Your task to perform on an android device: make emails show in primary in the gmail app Image 0: 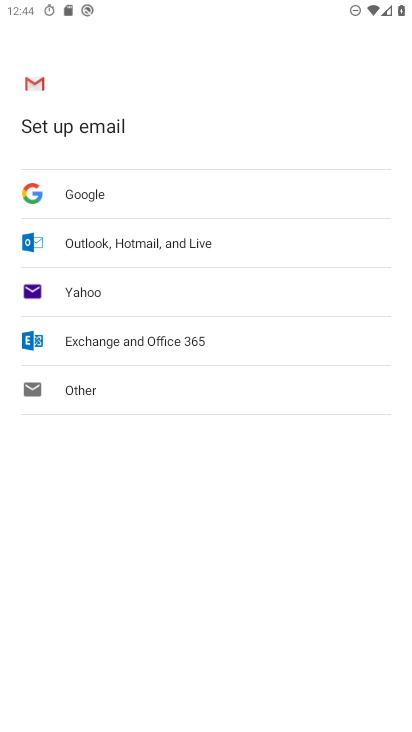
Step 0: press home button
Your task to perform on an android device: make emails show in primary in the gmail app Image 1: 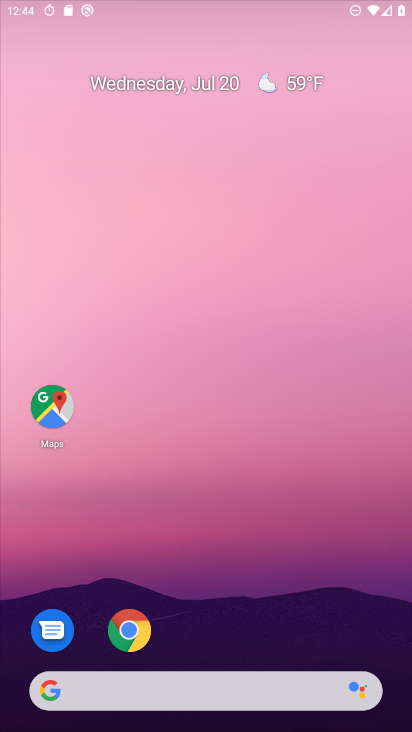
Step 1: drag from (255, 543) to (279, 40)
Your task to perform on an android device: make emails show in primary in the gmail app Image 2: 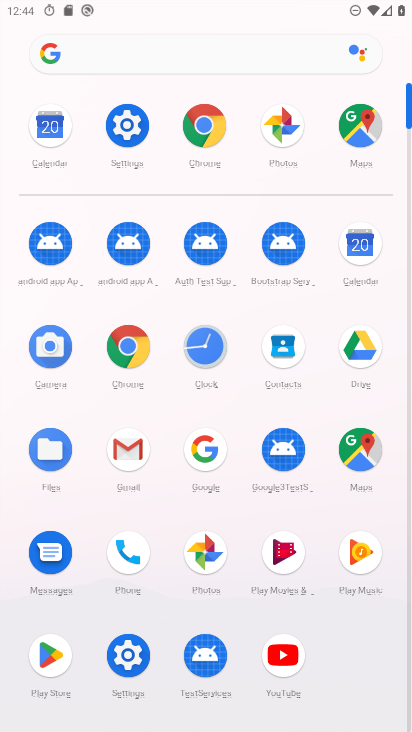
Step 2: click (123, 457)
Your task to perform on an android device: make emails show in primary in the gmail app Image 3: 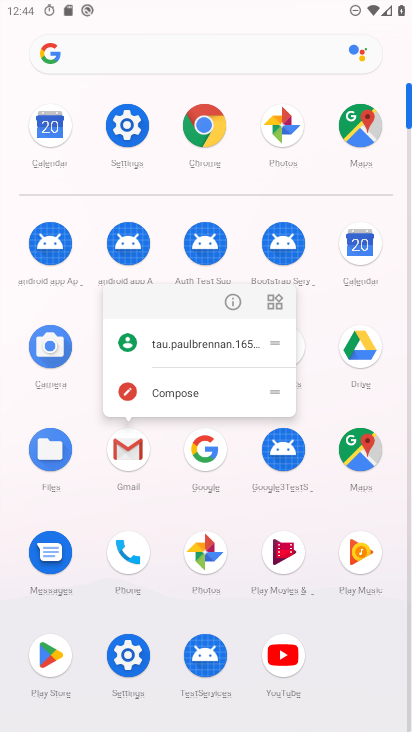
Step 3: click (122, 461)
Your task to perform on an android device: make emails show in primary in the gmail app Image 4: 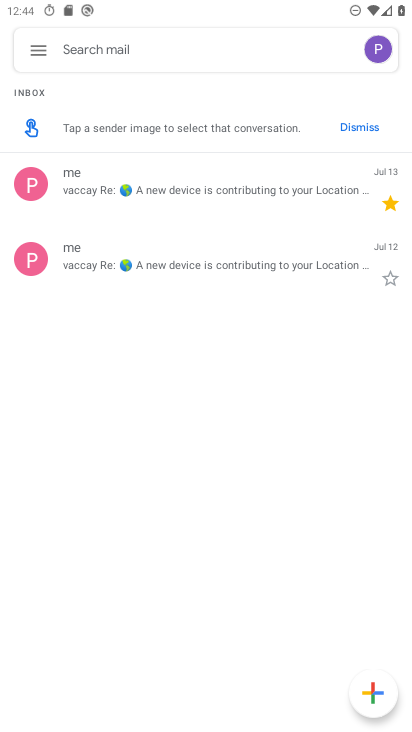
Step 4: click (30, 48)
Your task to perform on an android device: make emails show in primary in the gmail app Image 5: 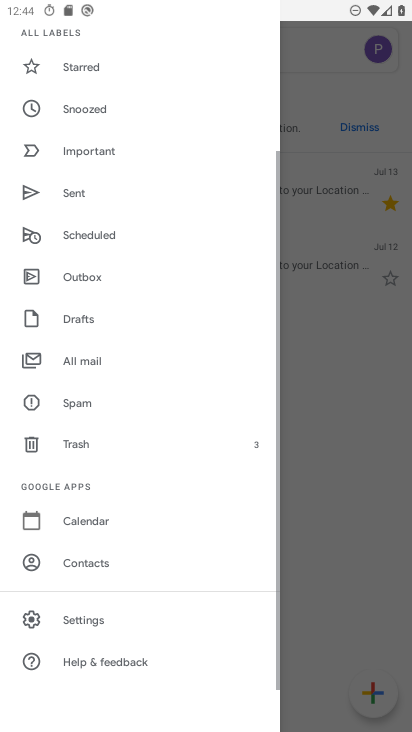
Step 5: drag from (107, 91) to (99, 491)
Your task to perform on an android device: make emails show in primary in the gmail app Image 6: 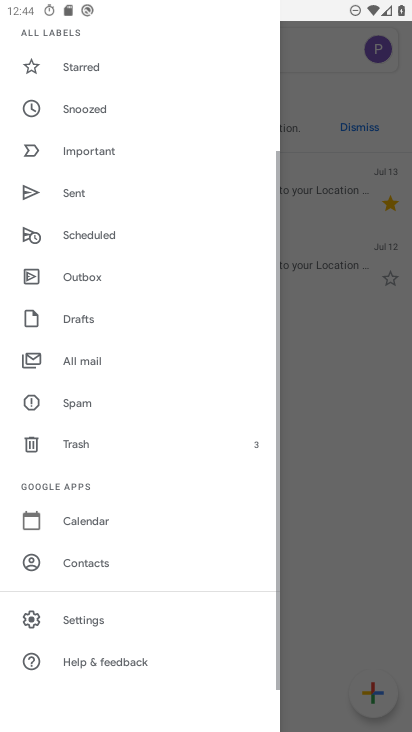
Step 6: drag from (116, 246) to (155, 702)
Your task to perform on an android device: make emails show in primary in the gmail app Image 7: 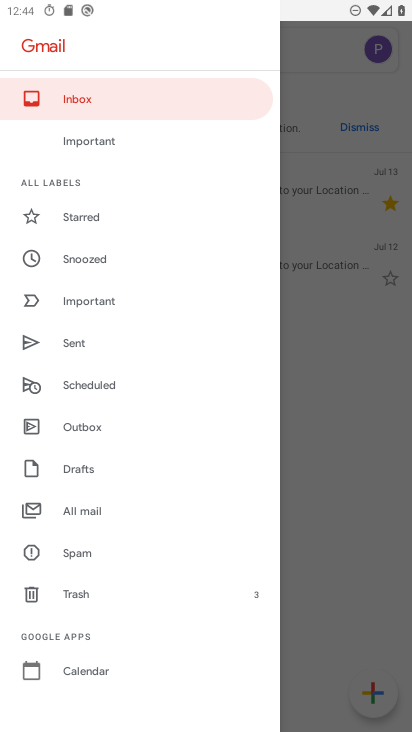
Step 7: drag from (151, 638) to (158, 90)
Your task to perform on an android device: make emails show in primary in the gmail app Image 8: 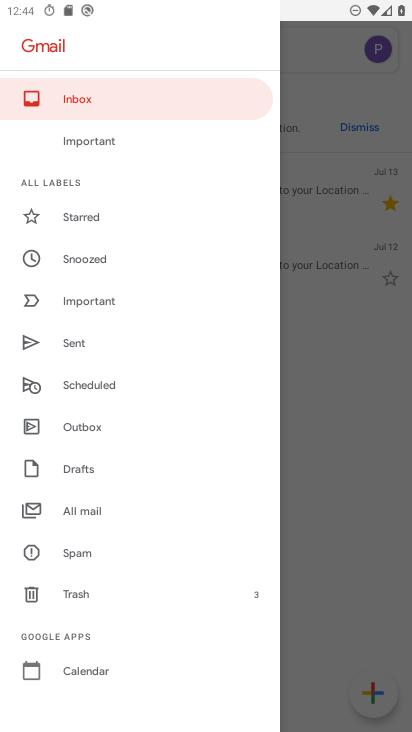
Step 8: drag from (92, 581) to (171, 159)
Your task to perform on an android device: make emails show in primary in the gmail app Image 9: 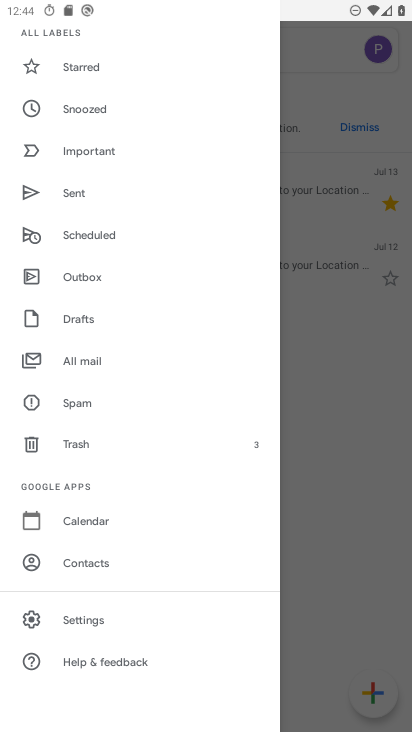
Step 9: click (90, 618)
Your task to perform on an android device: make emails show in primary in the gmail app Image 10: 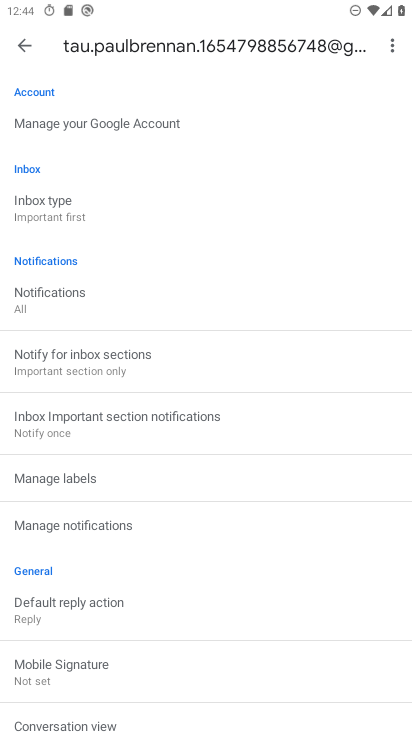
Step 10: click (92, 219)
Your task to perform on an android device: make emails show in primary in the gmail app Image 11: 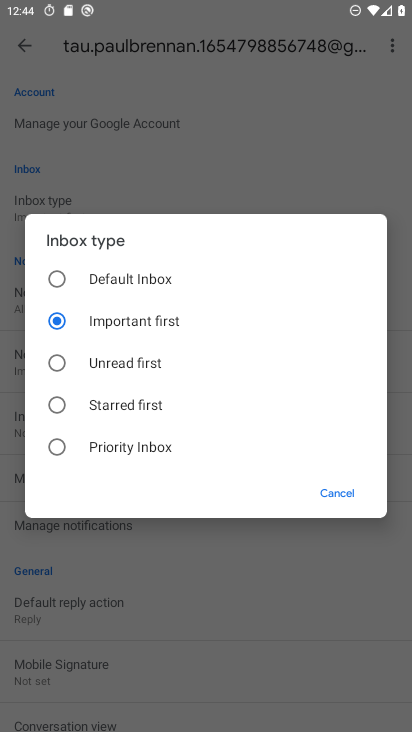
Step 11: click (55, 269)
Your task to perform on an android device: make emails show in primary in the gmail app Image 12: 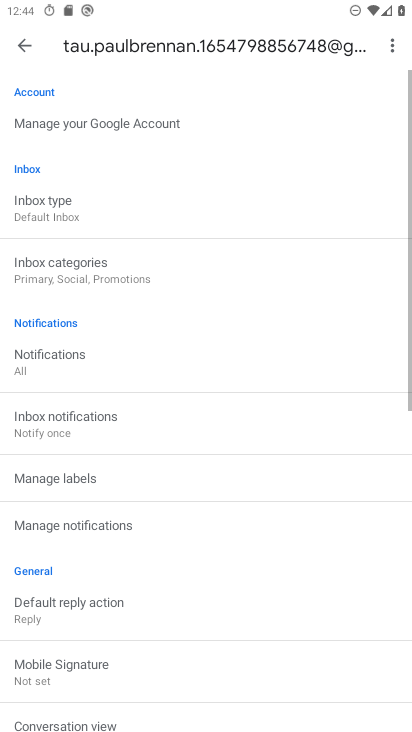
Step 12: task complete